Your task to perform on an android device: change the clock display to show seconds Image 0: 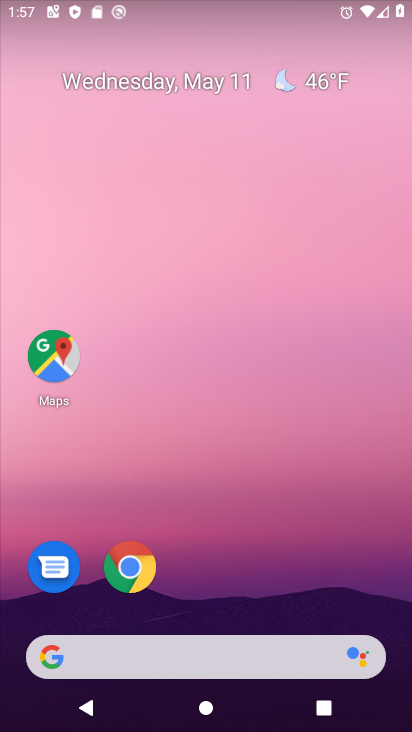
Step 0: drag from (200, 624) to (214, 6)
Your task to perform on an android device: change the clock display to show seconds Image 1: 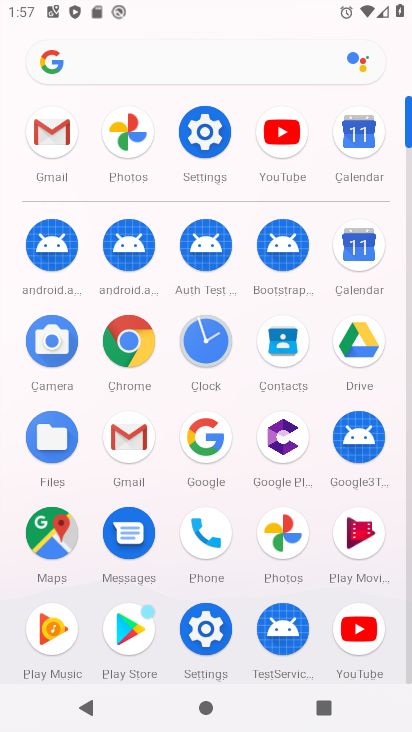
Step 1: click (219, 356)
Your task to perform on an android device: change the clock display to show seconds Image 2: 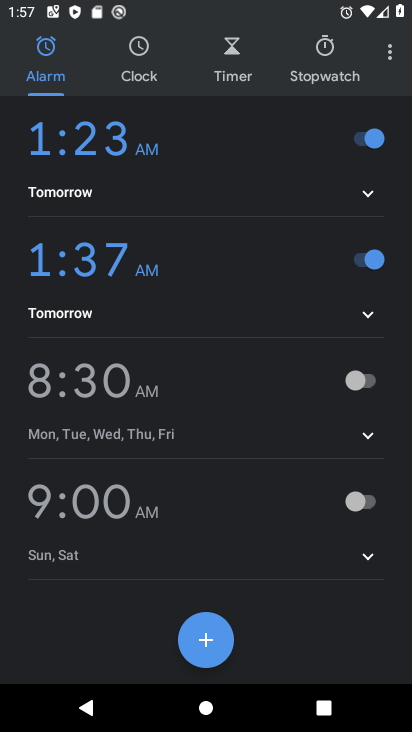
Step 2: click (387, 55)
Your task to perform on an android device: change the clock display to show seconds Image 3: 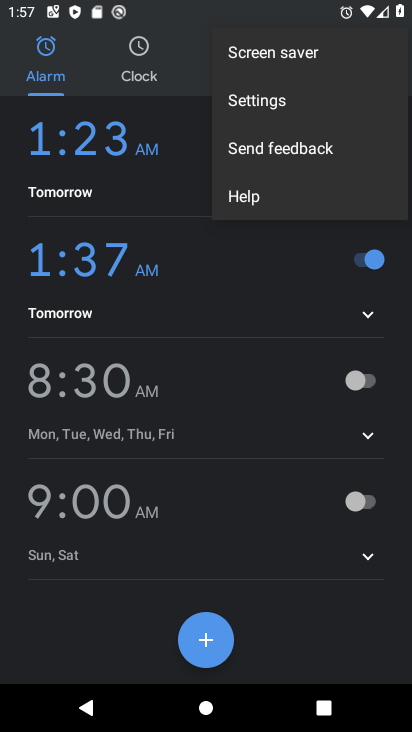
Step 3: click (293, 101)
Your task to perform on an android device: change the clock display to show seconds Image 4: 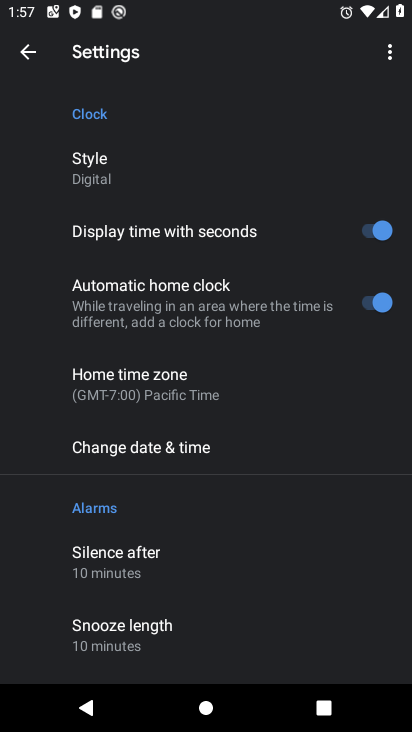
Step 4: task complete